Your task to perform on an android device: remove spam from my inbox in the gmail app Image 0: 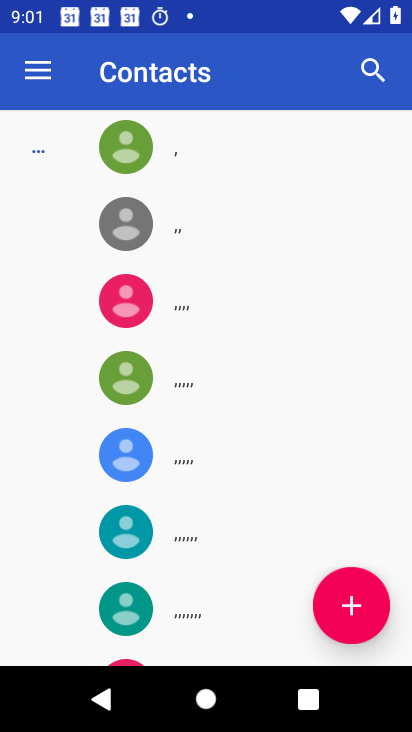
Step 0: press back button
Your task to perform on an android device: remove spam from my inbox in the gmail app Image 1: 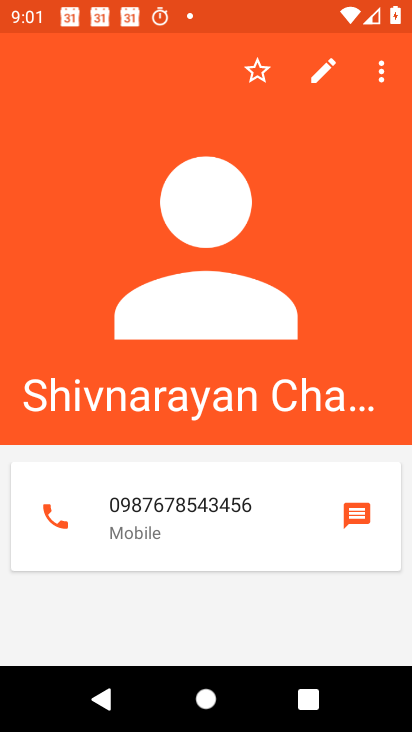
Step 1: press back button
Your task to perform on an android device: remove spam from my inbox in the gmail app Image 2: 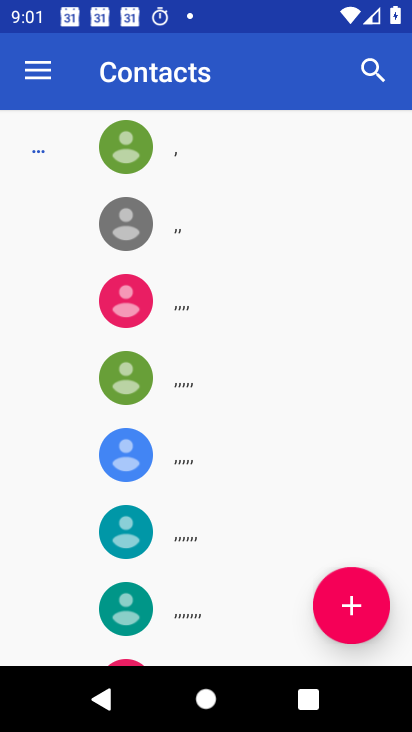
Step 2: press back button
Your task to perform on an android device: remove spam from my inbox in the gmail app Image 3: 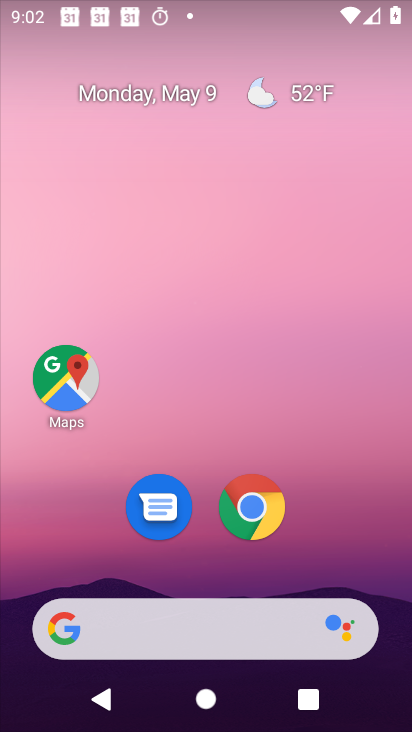
Step 3: drag from (351, 557) to (210, 35)
Your task to perform on an android device: remove spam from my inbox in the gmail app Image 4: 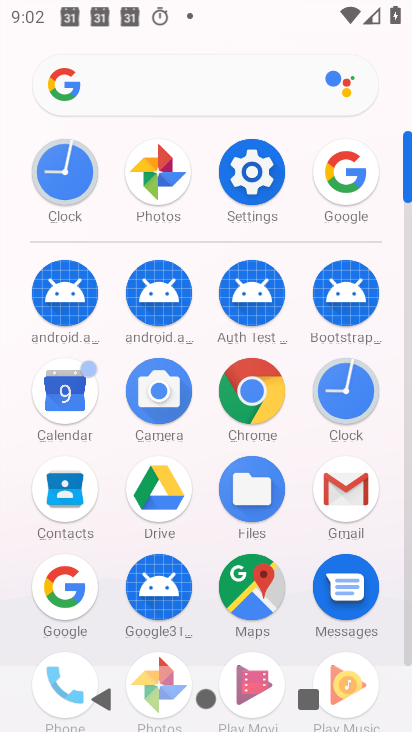
Step 4: drag from (197, 533) to (200, 281)
Your task to perform on an android device: remove spam from my inbox in the gmail app Image 5: 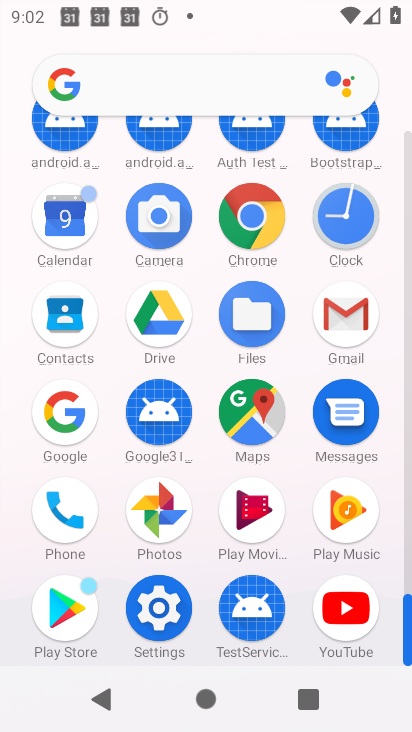
Step 5: click (348, 315)
Your task to perform on an android device: remove spam from my inbox in the gmail app Image 6: 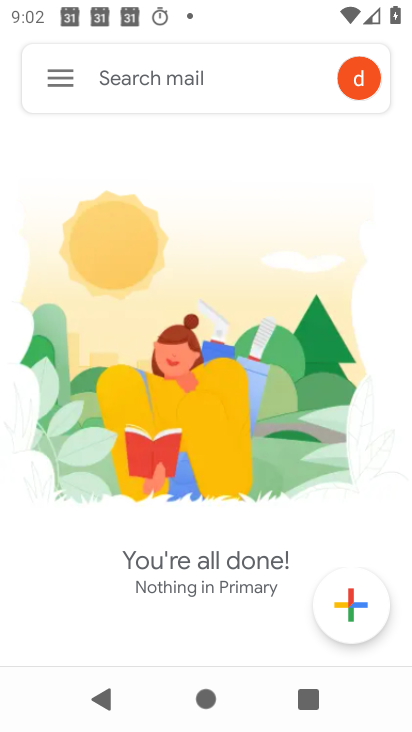
Step 6: click (56, 82)
Your task to perform on an android device: remove spam from my inbox in the gmail app Image 7: 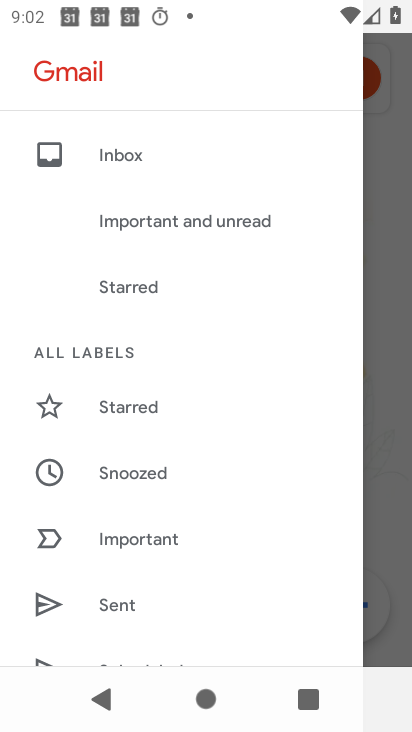
Step 7: drag from (166, 507) to (195, 377)
Your task to perform on an android device: remove spam from my inbox in the gmail app Image 8: 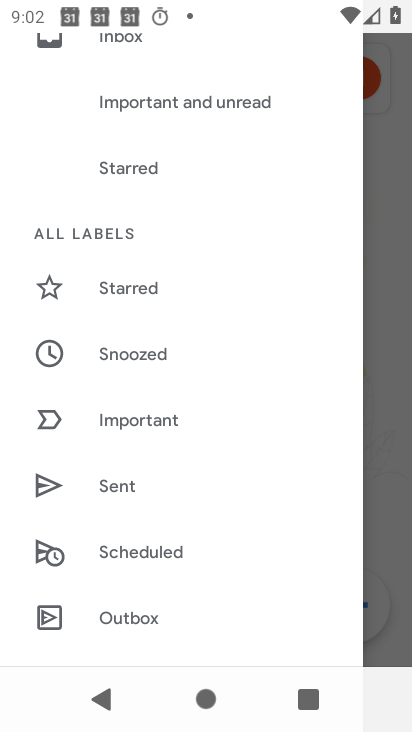
Step 8: drag from (171, 508) to (208, 386)
Your task to perform on an android device: remove spam from my inbox in the gmail app Image 9: 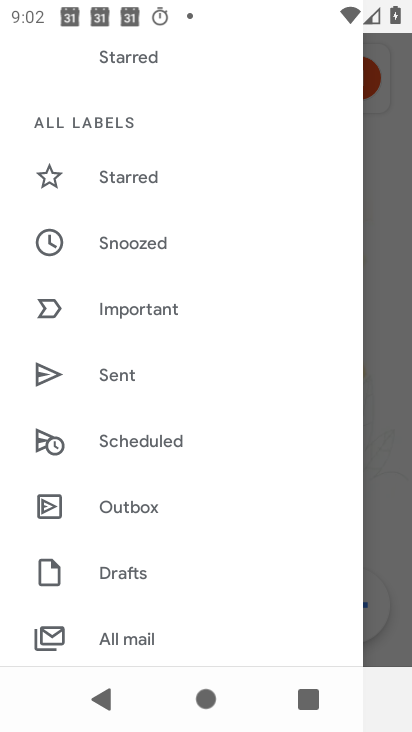
Step 9: drag from (141, 555) to (201, 436)
Your task to perform on an android device: remove spam from my inbox in the gmail app Image 10: 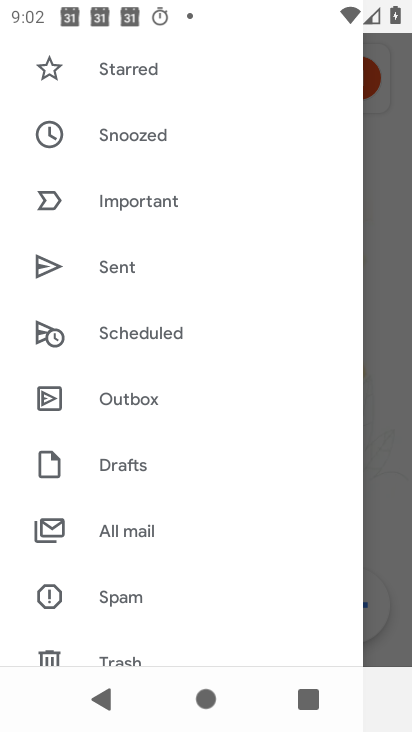
Step 10: drag from (150, 579) to (208, 464)
Your task to perform on an android device: remove spam from my inbox in the gmail app Image 11: 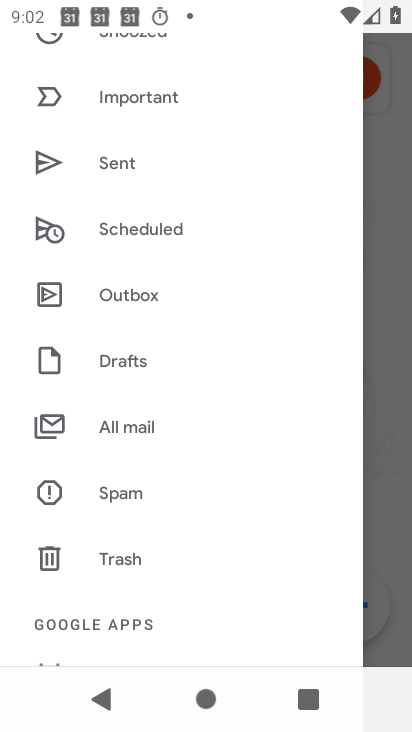
Step 11: click (134, 492)
Your task to perform on an android device: remove spam from my inbox in the gmail app Image 12: 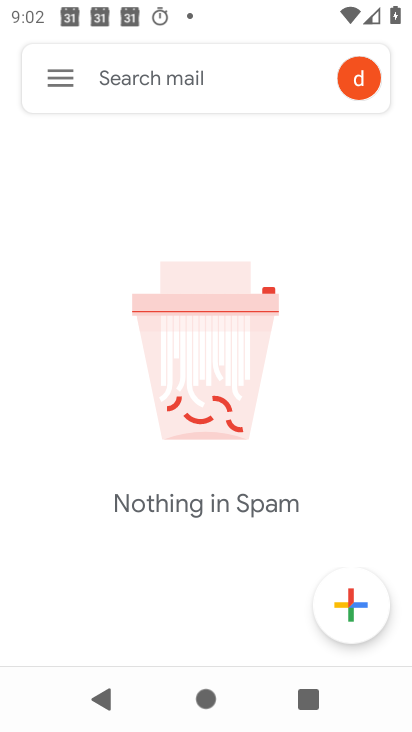
Step 12: task complete